Your task to perform on an android device: add a contact in the contacts app Image 0: 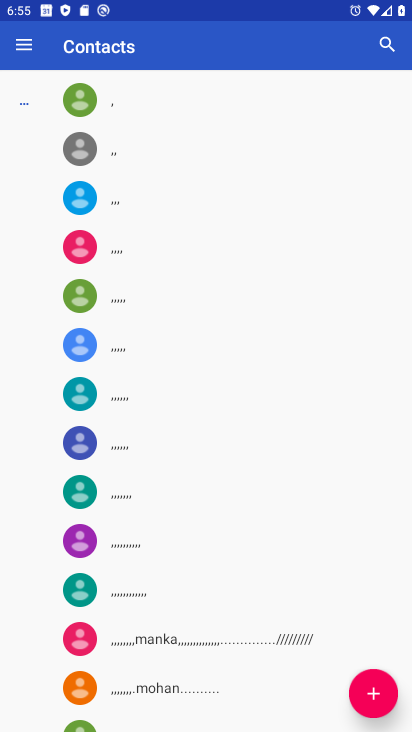
Step 0: press home button
Your task to perform on an android device: add a contact in the contacts app Image 1: 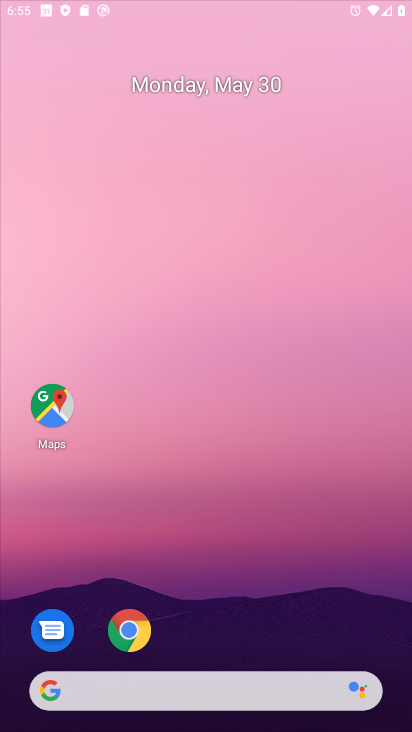
Step 1: drag from (252, 618) to (189, 65)
Your task to perform on an android device: add a contact in the contacts app Image 2: 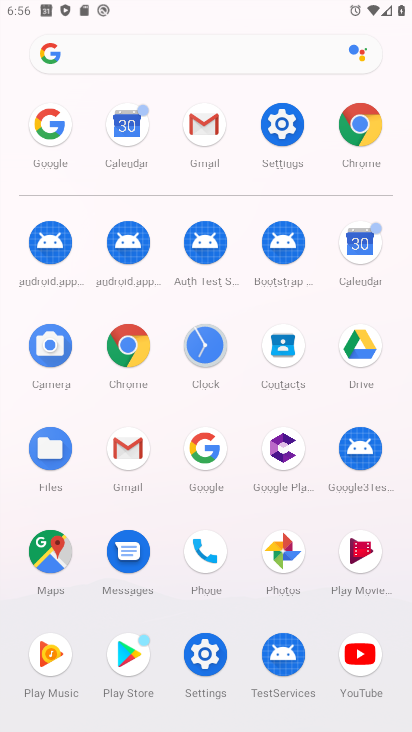
Step 2: click (270, 354)
Your task to perform on an android device: add a contact in the contacts app Image 3: 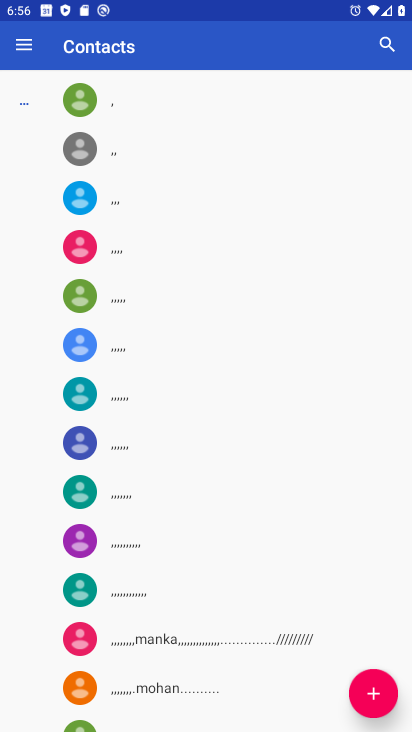
Step 3: click (378, 692)
Your task to perform on an android device: add a contact in the contacts app Image 4: 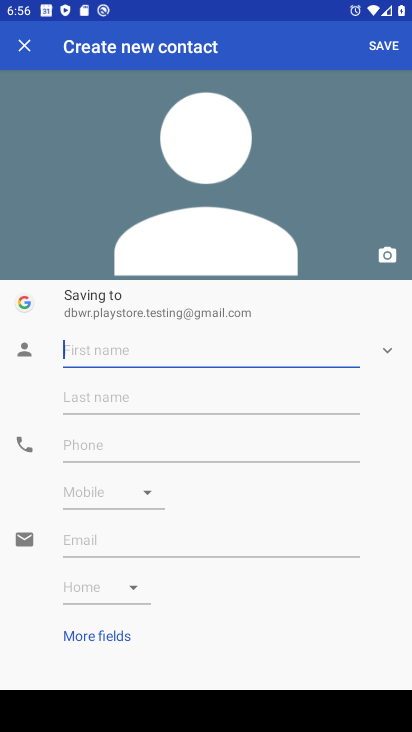
Step 4: type "mika"
Your task to perform on an android device: add a contact in the contacts app Image 5: 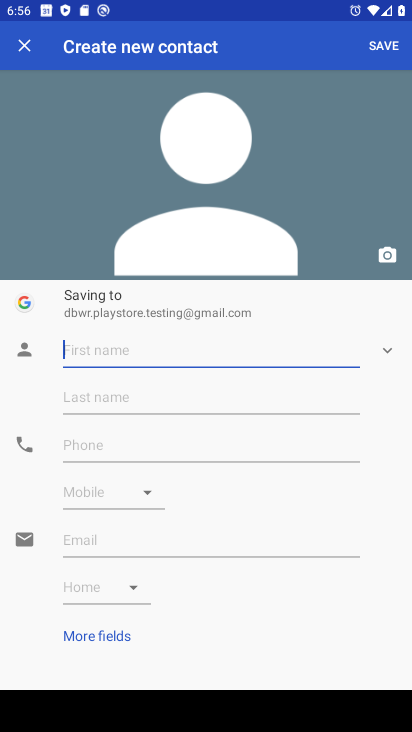
Step 5: click (382, 33)
Your task to perform on an android device: add a contact in the contacts app Image 6: 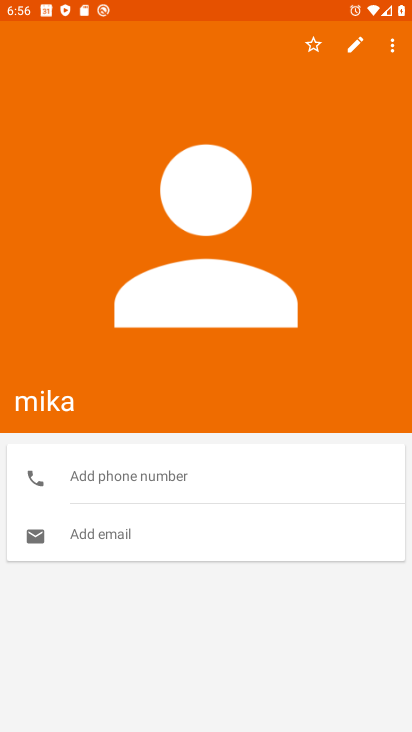
Step 6: task complete